Your task to perform on an android device: turn off translation in the chrome app Image 0: 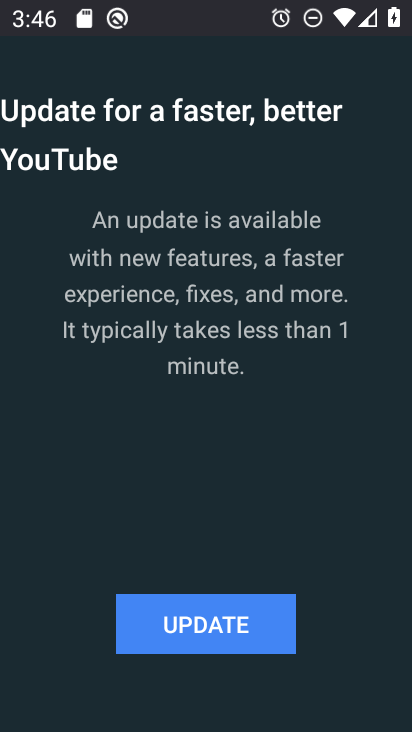
Step 0: click (247, 357)
Your task to perform on an android device: turn off translation in the chrome app Image 1: 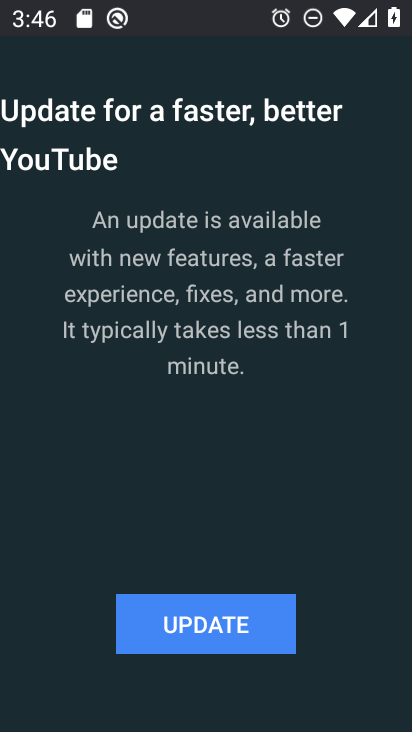
Step 1: click (213, 365)
Your task to perform on an android device: turn off translation in the chrome app Image 2: 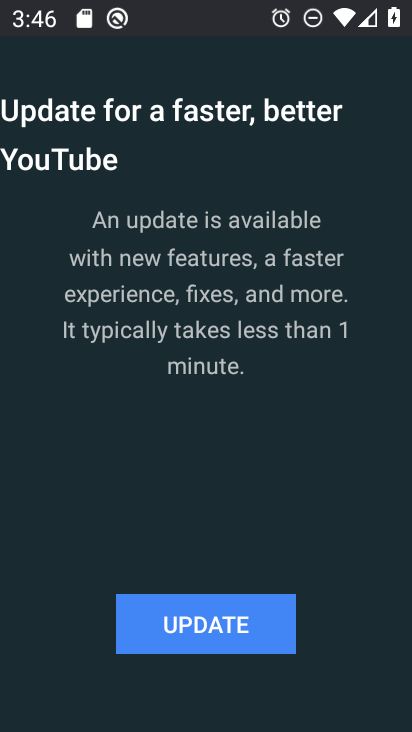
Step 2: click (235, 363)
Your task to perform on an android device: turn off translation in the chrome app Image 3: 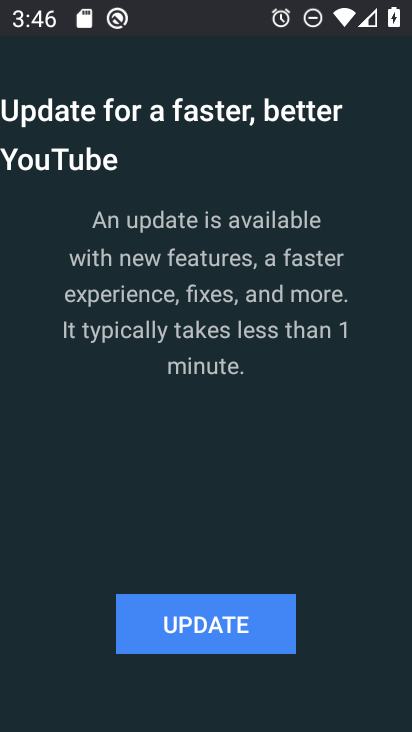
Step 3: click (271, 346)
Your task to perform on an android device: turn off translation in the chrome app Image 4: 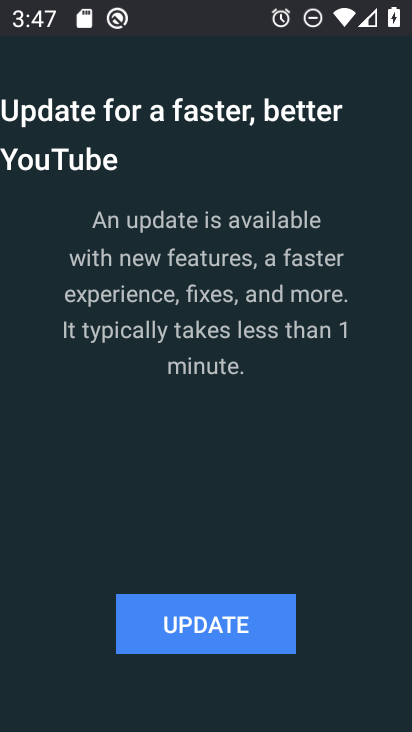
Step 4: drag from (295, 536) to (285, 309)
Your task to perform on an android device: turn off translation in the chrome app Image 5: 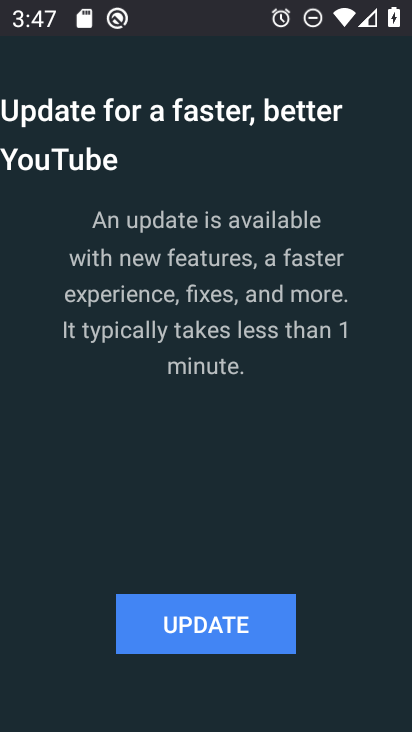
Step 5: click (291, 420)
Your task to perform on an android device: turn off translation in the chrome app Image 6: 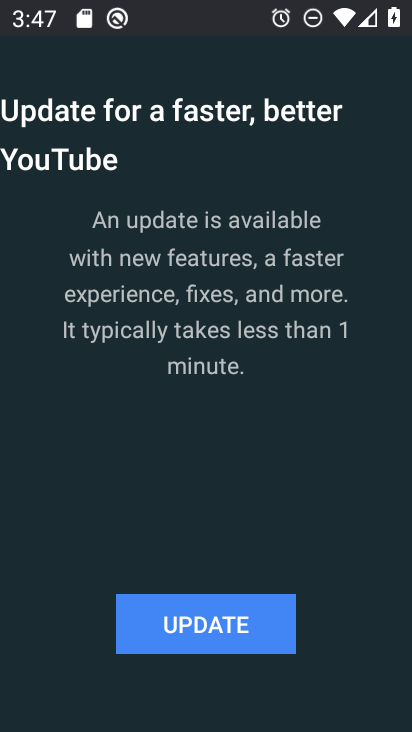
Step 6: drag from (153, 494) to (233, 299)
Your task to perform on an android device: turn off translation in the chrome app Image 7: 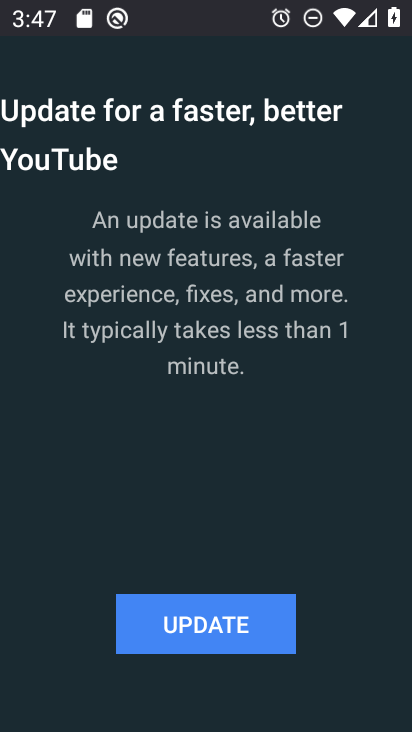
Step 7: click (238, 265)
Your task to perform on an android device: turn off translation in the chrome app Image 8: 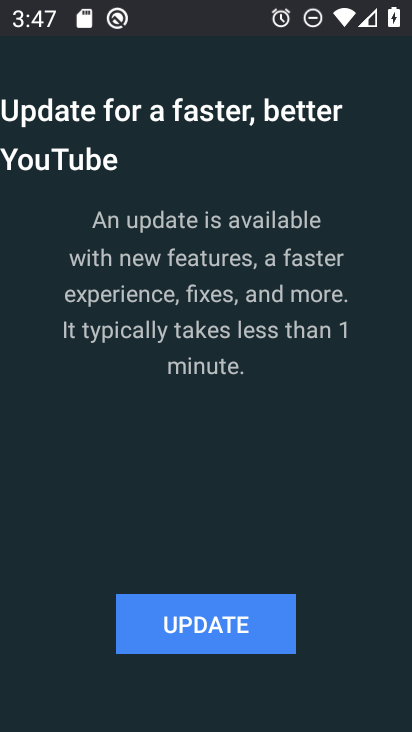
Step 8: click (238, 265)
Your task to perform on an android device: turn off translation in the chrome app Image 9: 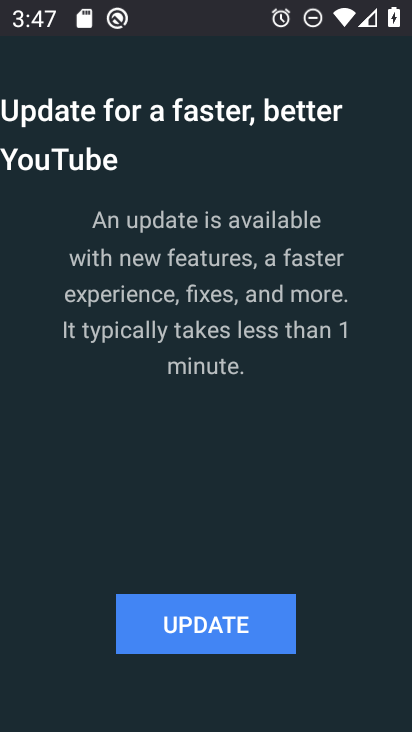
Step 9: press home button
Your task to perform on an android device: turn off translation in the chrome app Image 10: 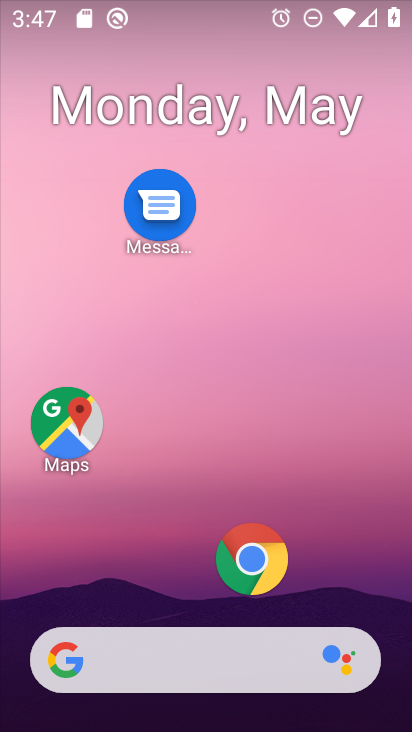
Step 10: drag from (142, 582) to (288, 188)
Your task to perform on an android device: turn off translation in the chrome app Image 11: 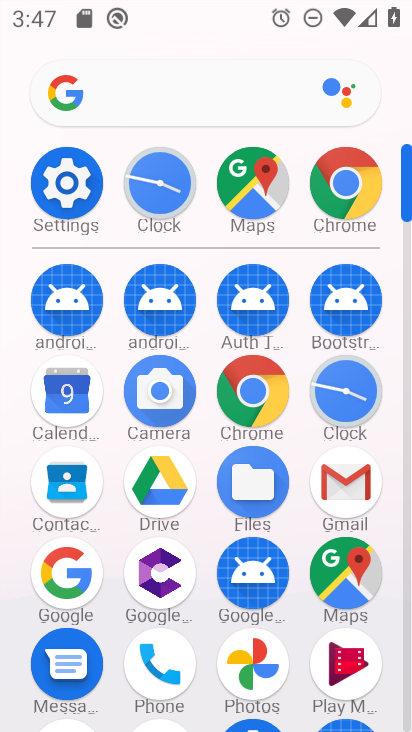
Step 11: drag from (211, 643) to (231, 218)
Your task to perform on an android device: turn off translation in the chrome app Image 12: 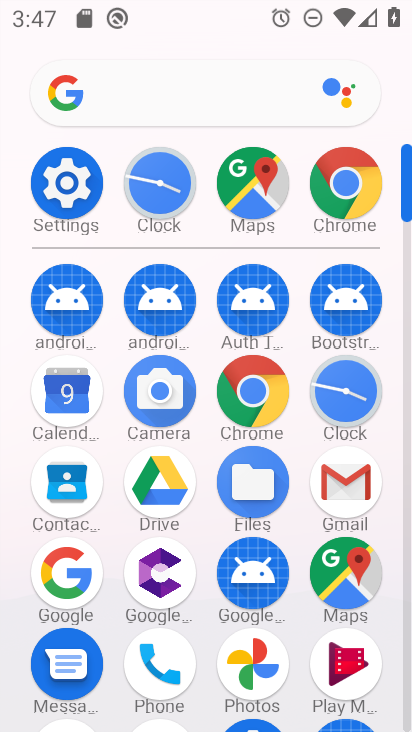
Step 12: click (248, 386)
Your task to perform on an android device: turn off translation in the chrome app Image 13: 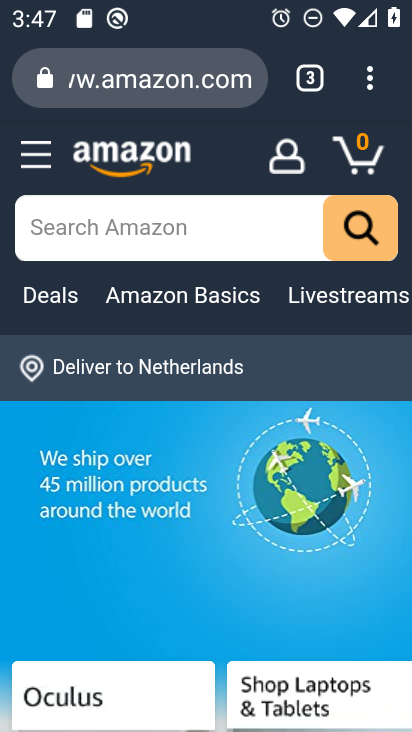
Step 13: drag from (208, 607) to (218, 298)
Your task to perform on an android device: turn off translation in the chrome app Image 14: 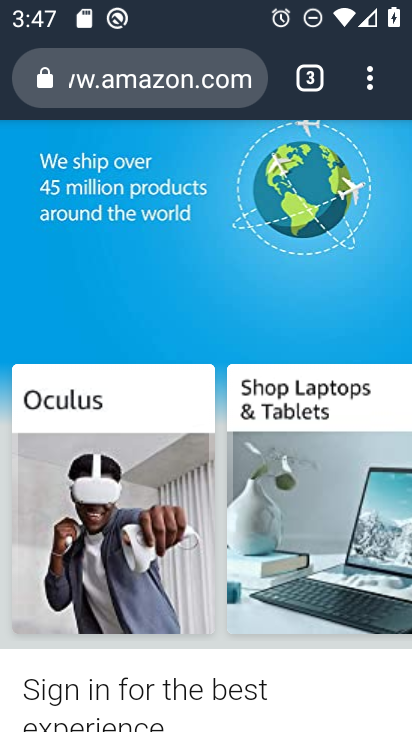
Step 14: drag from (214, 548) to (233, 181)
Your task to perform on an android device: turn off translation in the chrome app Image 15: 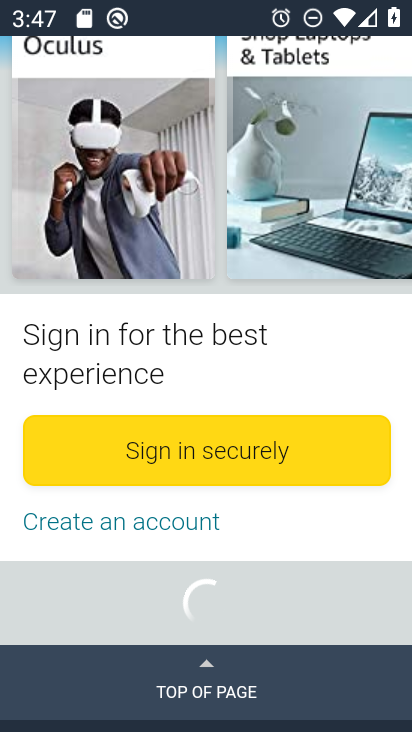
Step 15: drag from (243, 565) to (278, 117)
Your task to perform on an android device: turn off translation in the chrome app Image 16: 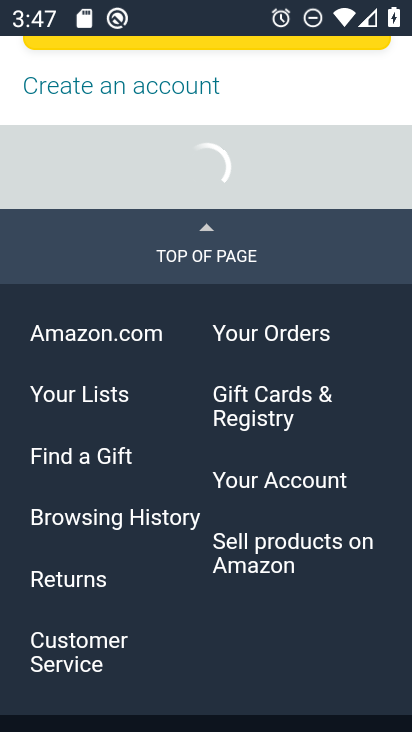
Step 16: drag from (236, 118) to (223, 727)
Your task to perform on an android device: turn off translation in the chrome app Image 17: 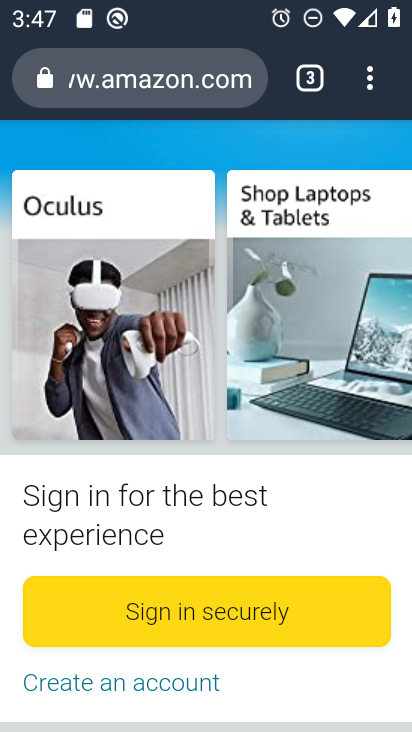
Step 17: drag from (221, 151) to (188, 701)
Your task to perform on an android device: turn off translation in the chrome app Image 18: 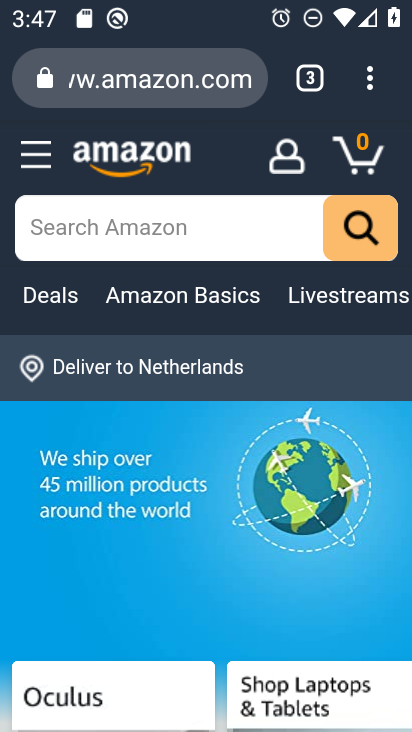
Step 18: click (379, 79)
Your task to perform on an android device: turn off translation in the chrome app Image 19: 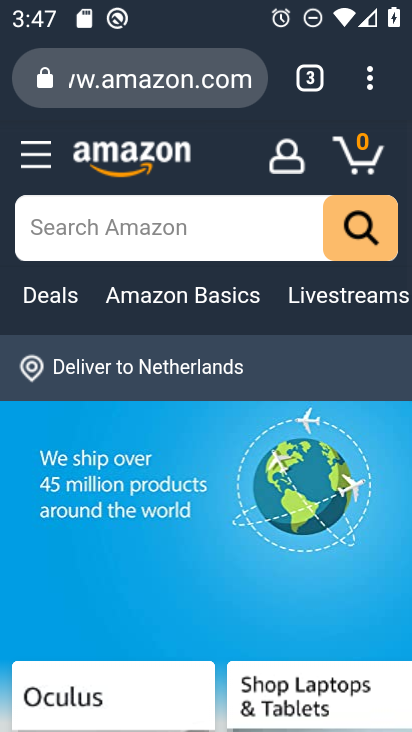
Step 19: drag from (373, 81) to (152, 621)
Your task to perform on an android device: turn off translation in the chrome app Image 20: 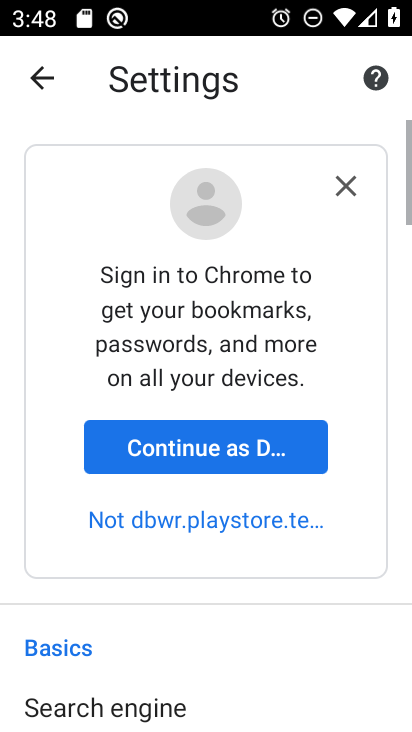
Step 20: drag from (181, 669) to (307, 110)
Your task to perform on an android device: turn off translation in the chrome app Image 21: 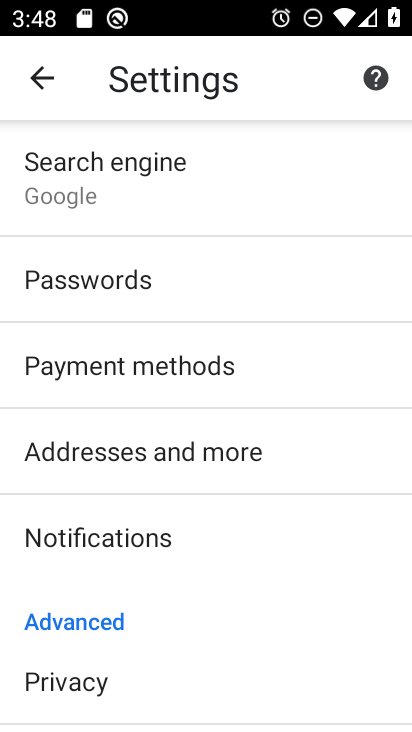
Step 21: drag from (189, 574) to (233, 218)
Your task to perform on an android device: turn off translation in the chrome app Image 22: 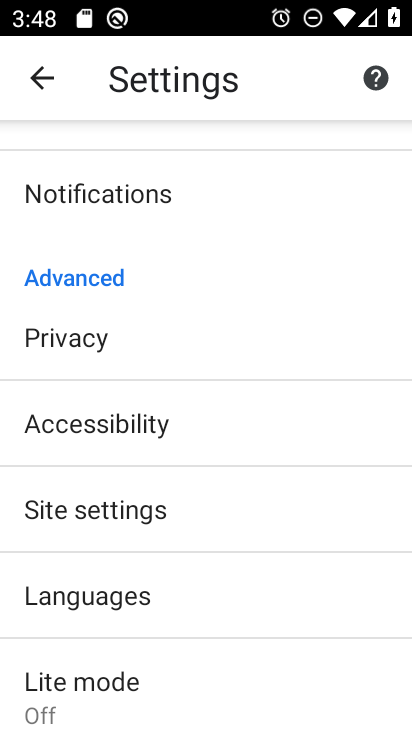
Step 22: drag from (157, 507) to (190, 305)
Your task to perform on an android device: turn off translation in the chrome app Image 23: 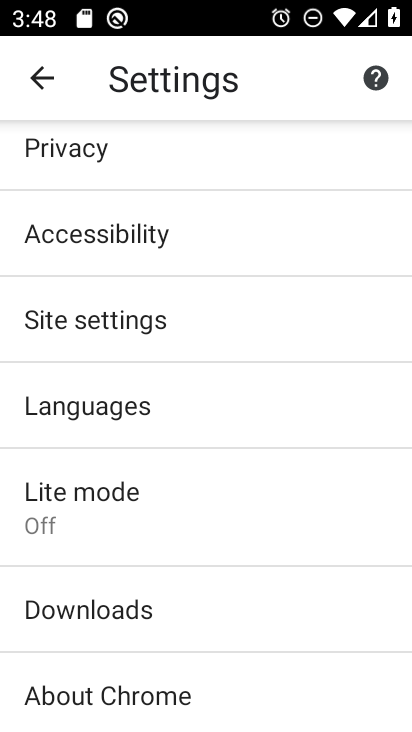
Step 23: drag from (285, 358) to (311, 207)
Your task to perform on an android device: turn off translation in the chrome app Image 24: 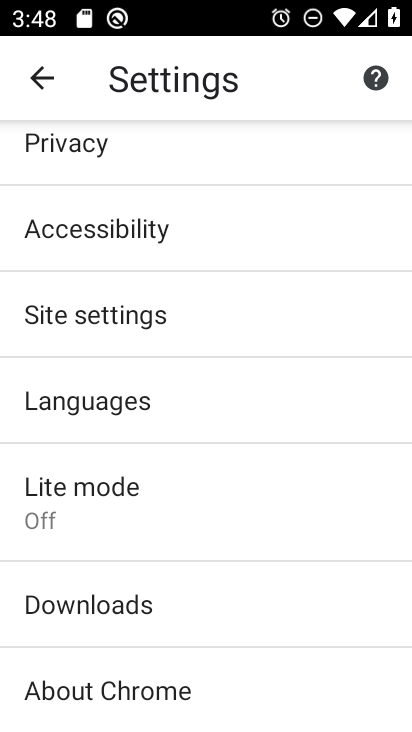
Step 24: click (154, 317)
Your task to perform on an android device: turn off translation in the chrome app Image 25: 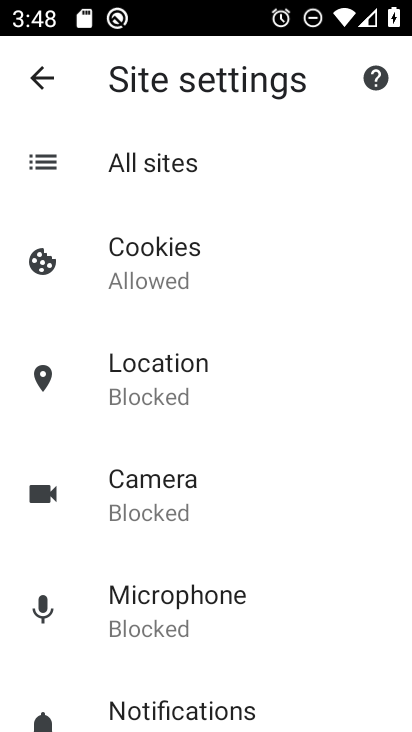
Step 25: drag from (216, 566) to (324, 152)
Your task to perform on an android device: turn off translation in the chrome app Image 26: 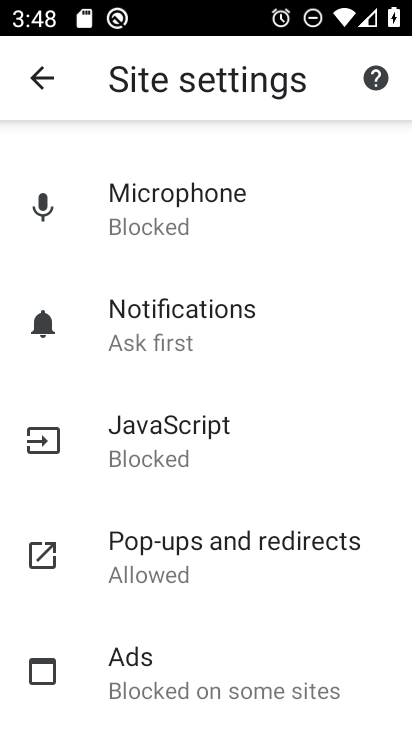
Step 26: drag from (152, 654) to (210, 368)
Your task to perform on an android device: turn off translation in the chrome app Image 27: 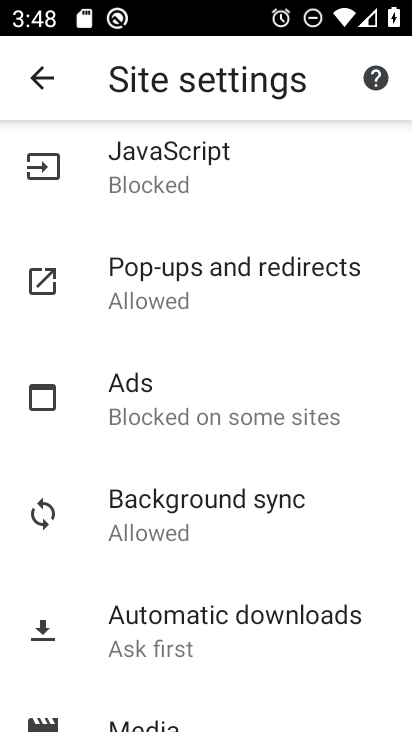
Step 27: click (32, 84)
Your task to perform on an android device: turn off translation in the chrome app Image 28: 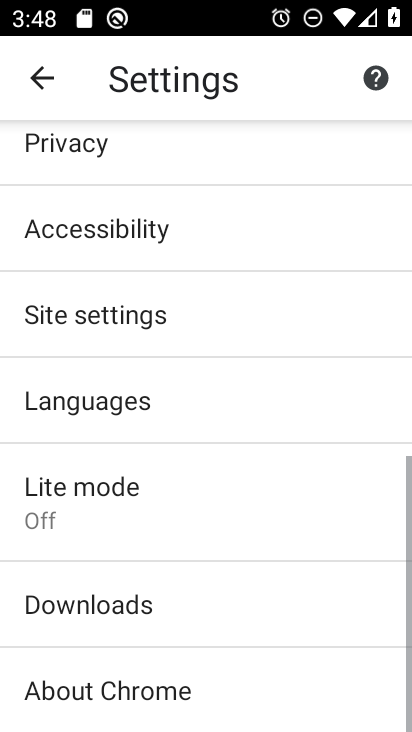
Step 28: drag from (220, 526) to (267, 278)
Your task to perform on an android device: turn off translation in the chrome app Image 29: 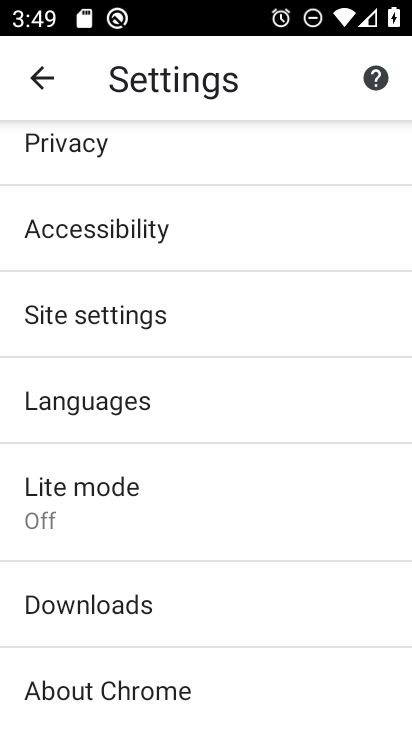
Step 29: click (169, 420)
Your task to perform on an android device: turn off translation in the chrome app Image 30: 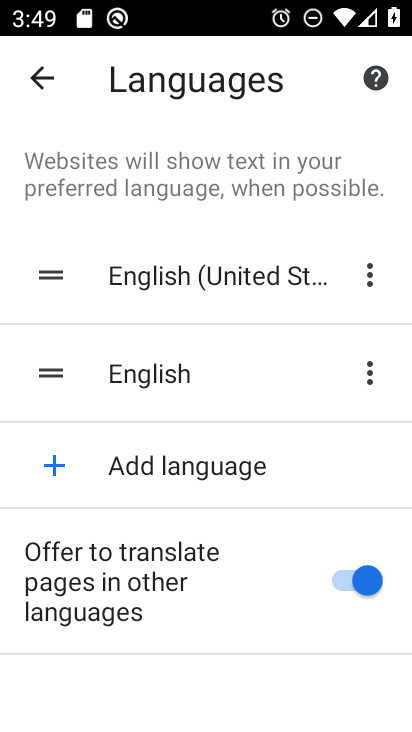
Step 30: click (340, 594)
Your task to perform on an android device: turn off translation in the chrome app Image 31: 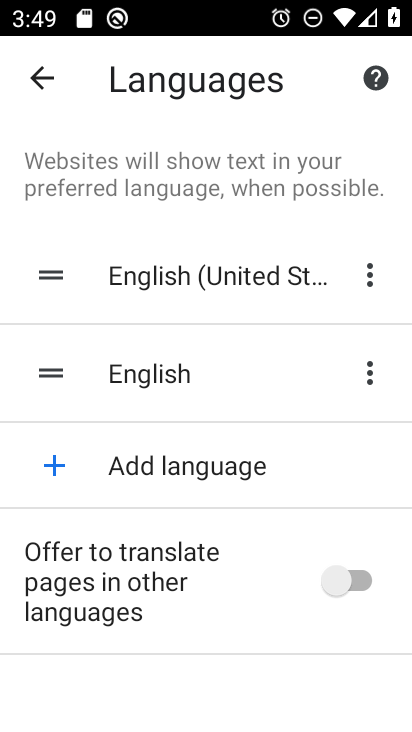
Step 31: task complete